Your task to perform on an android device: set the timer Image 0: 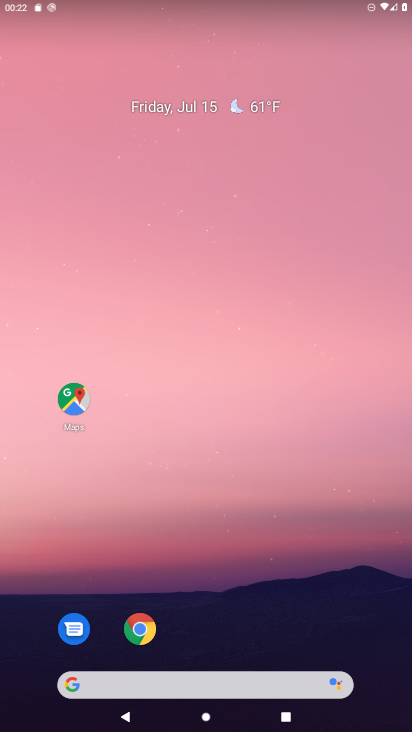
Step 0: drag from (237, 639) to (253, 89)
Your task to perform on an android device: set the timer Image 1: 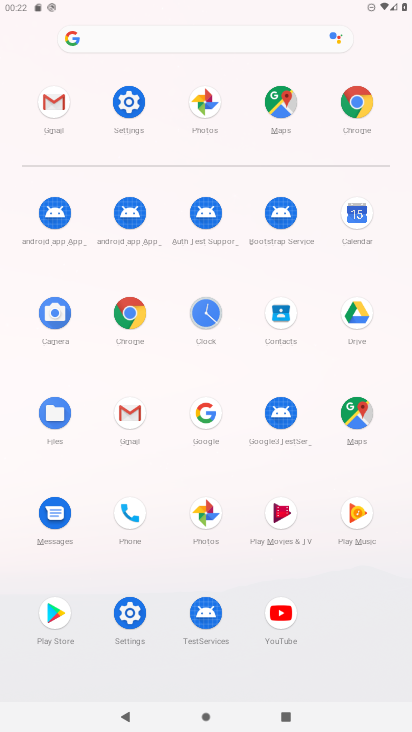
Step 1: click (215, 322)
Your task to perform on an android device: set the timer Image 2: 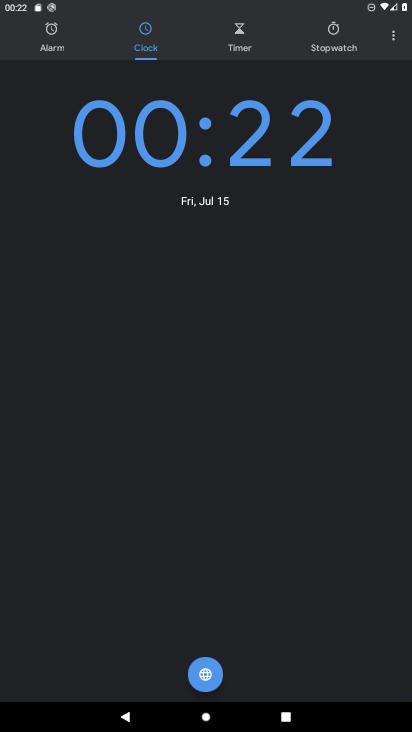
Step 2: click (235, 34)
Your task to perform on an android device: set the timer Image 3: 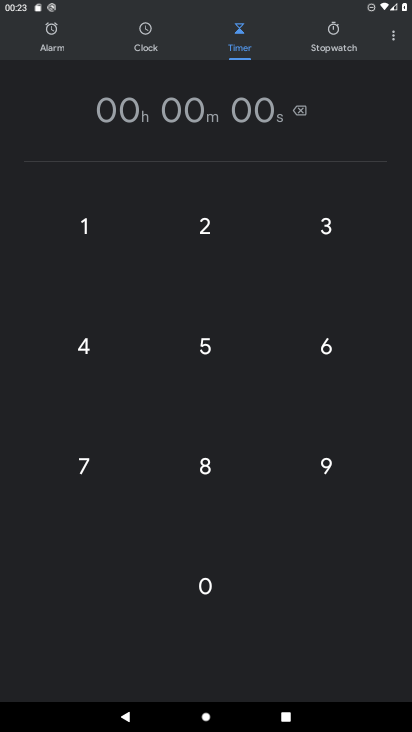
Step 3: task complete